Your task to perform on an android device: Go to Reddit.com Image 0: 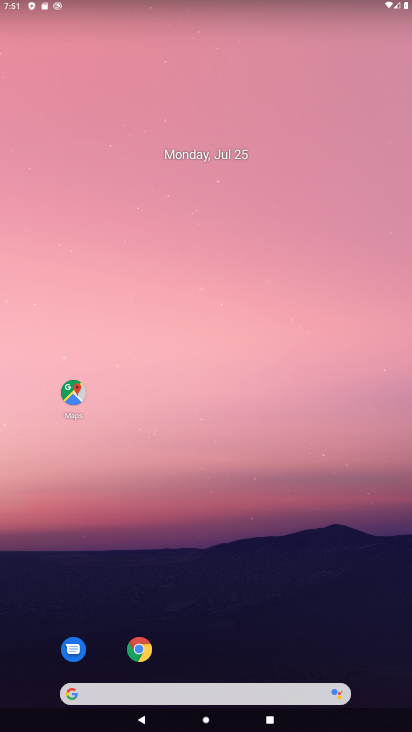
Step 0: drag from (343, 617) to (295, 212)
Your task to perform on an android device: Go to Reddit.com Image 1: 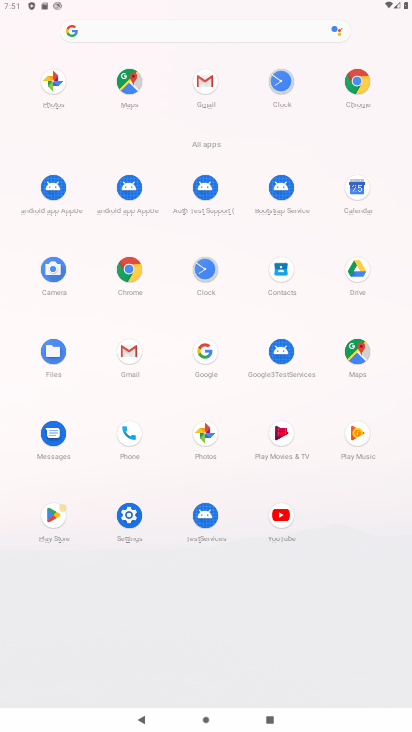
Step 1: click (361, 95)
Your task to perform on an android device: Go to Reddit.com Image 2: 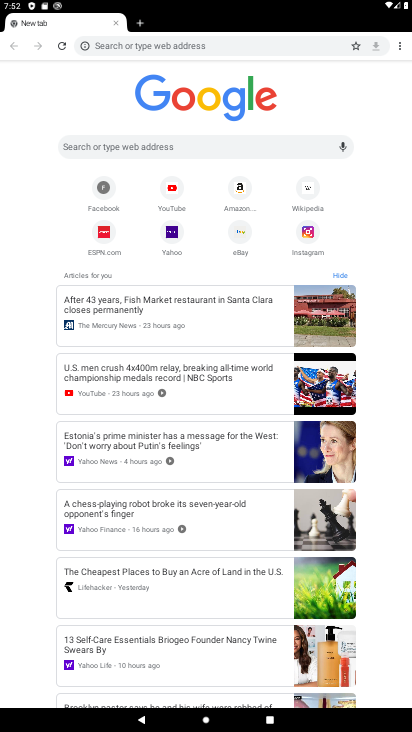
Step 2: click (217, 42)
Your task to perform on an android device: Go to Reddit.com Image 3: 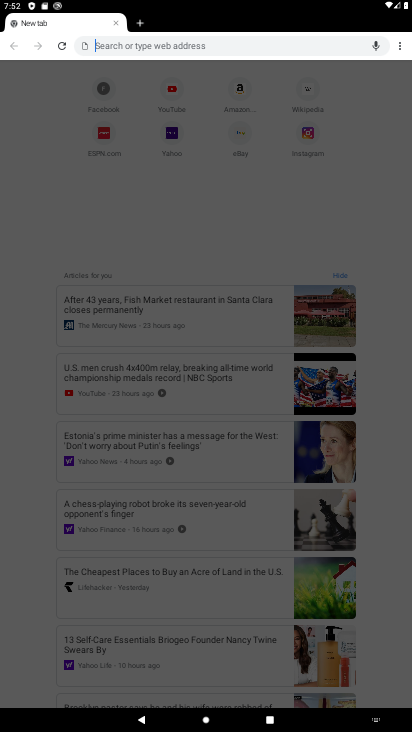
Step 3: type "Reddit.com"
Your task to perform on an android device: Go to Reddit.com Image 4: 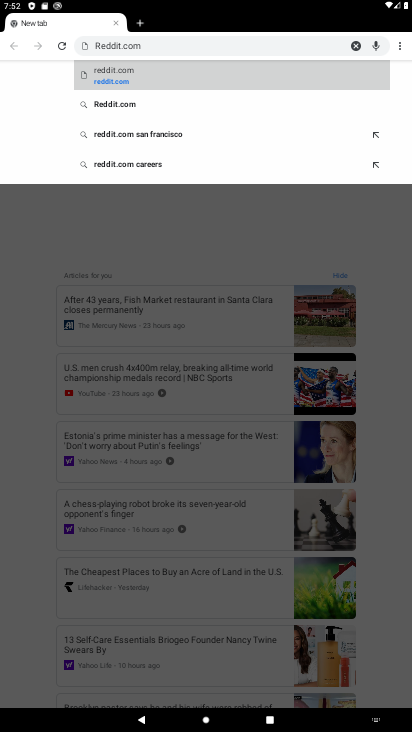
Step 4: click (113, 80)
Your task to perform on an android device: Go to Reddit.com Image 5: 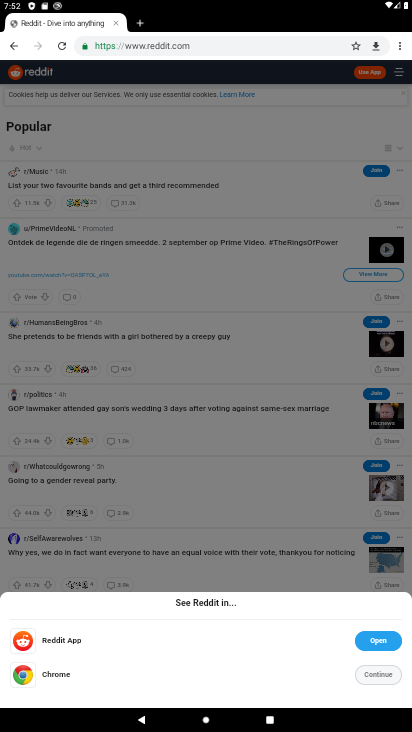
Step 5: task complete